Your task to perform on an android device: open a bookmark in the chrome app Image 0: 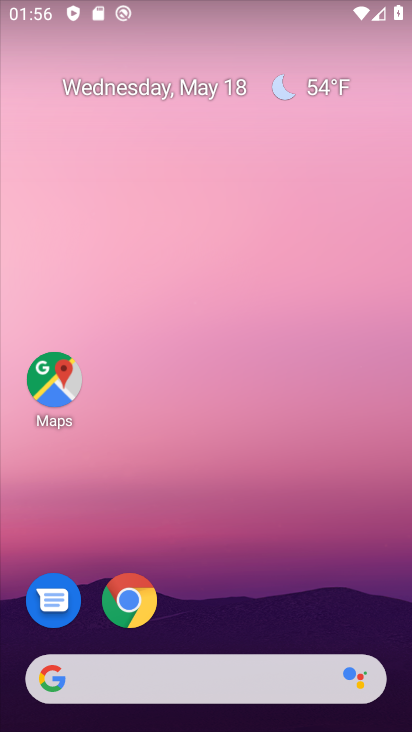
Step 0: click (127, 608)
Your task to perform on an android device: open a bookmark in the chrome app Image 1: 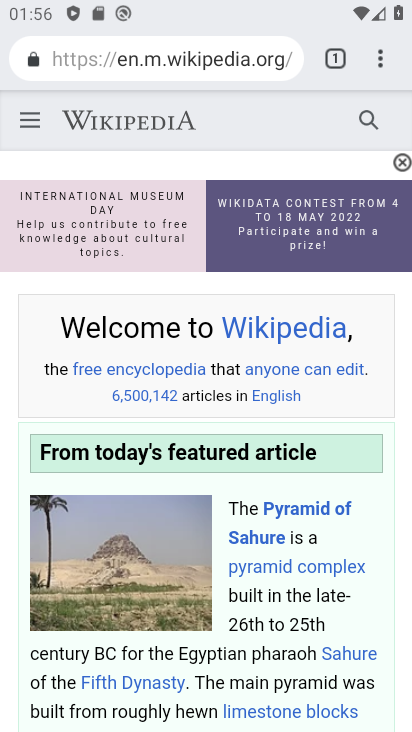
Step 1: click (380, 55)
Your task to perform on an android device: open a bookmark in the chrome app Image 2: 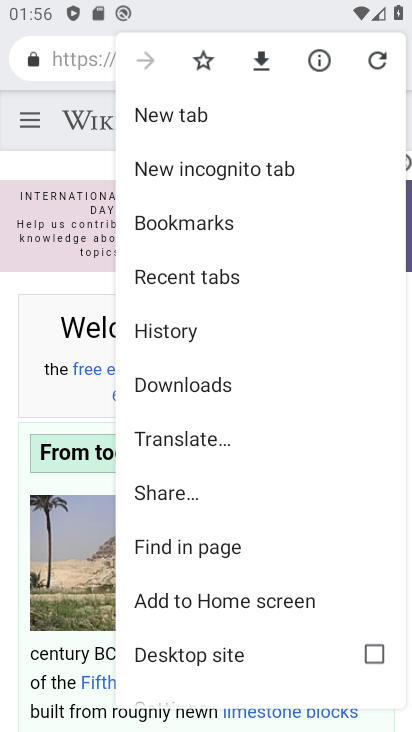
Step 2: click (186, 212)
Your task to perform on an android device: open a bookmark in the chrome app Image 3: 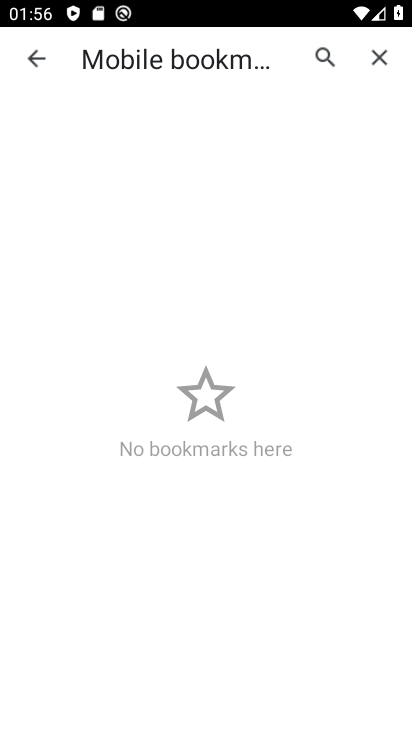
Step 3: task complete